Your task to perform on an android device: turn on notifications settings in the gmail app Image 0: 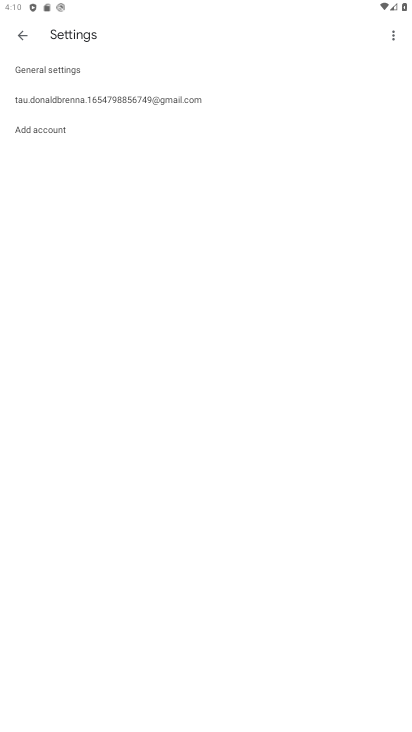
Step 0: drag from (159, 6) to (122, 620)
Your task to perform on an android device: turn on notifications settings in the gmail app Image 1: 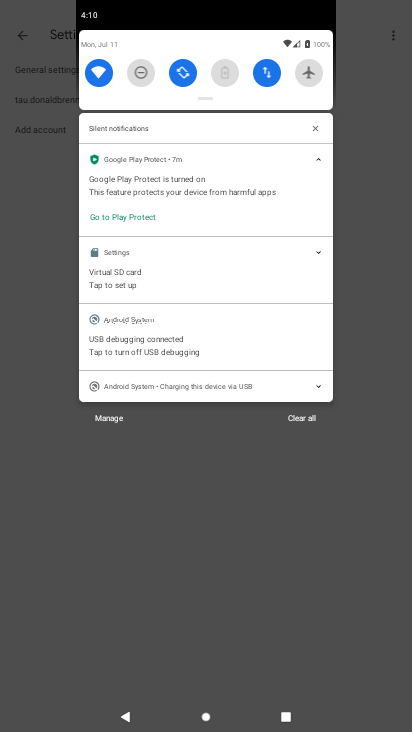
Step 1: drag from (203, 53) to (183, 588)
Your task to perform on an android device: turn on notifications settings in the gmail app Image 2: 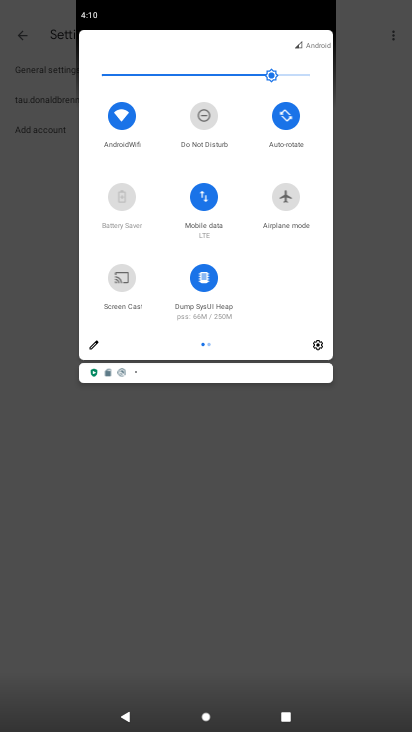
Step 2: click (314, 346)
Your task to perform on an android device: turn on notifications settings in the gmail app Image 3: 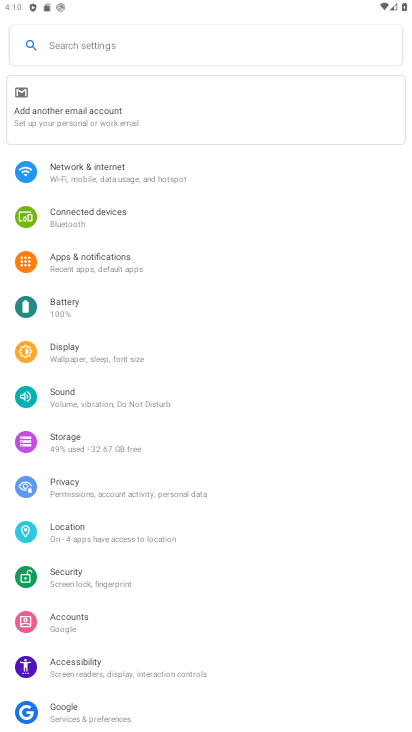
Step 3: click (101, 269)
Your task to perform on an android device: turn on notifications settings in the gmail app Image 4: 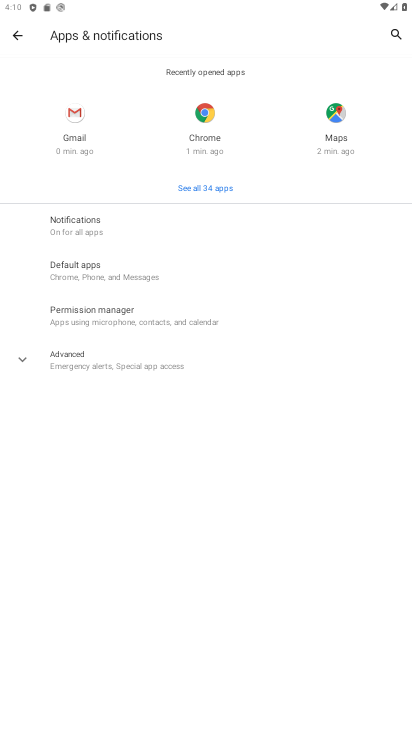
Step 4: click (63, 112)
Your task to perform on an android device: turn on notifications settings in the gmail app Image 5: 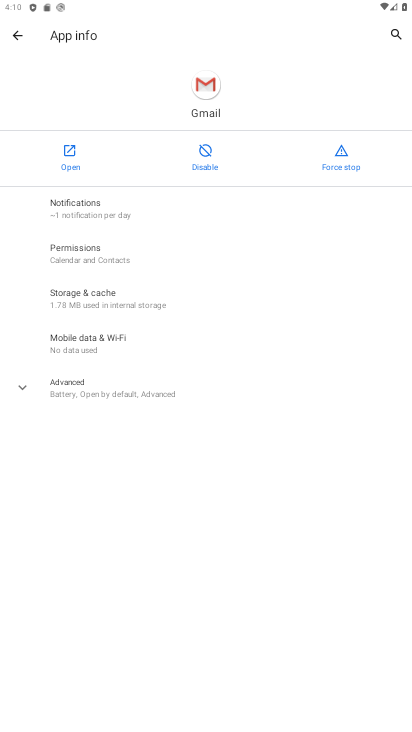
Step 5: click (153, 221)
Your task to perform on an android device: turn on notifications settings in the gmail app Image 6: 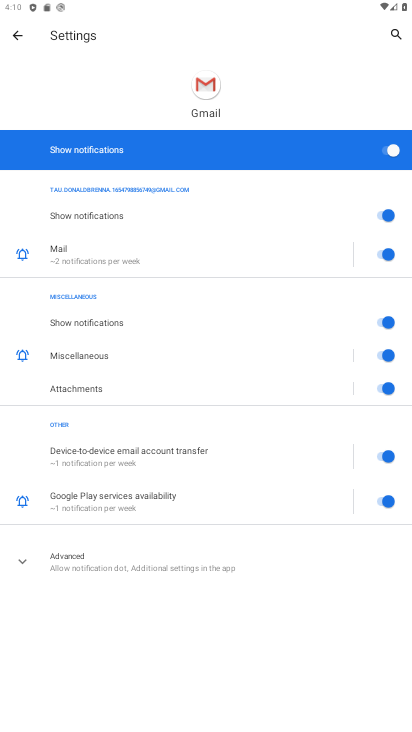
Step 6: task complete